Your task to perform on an android device: Open battery settings Image 0: 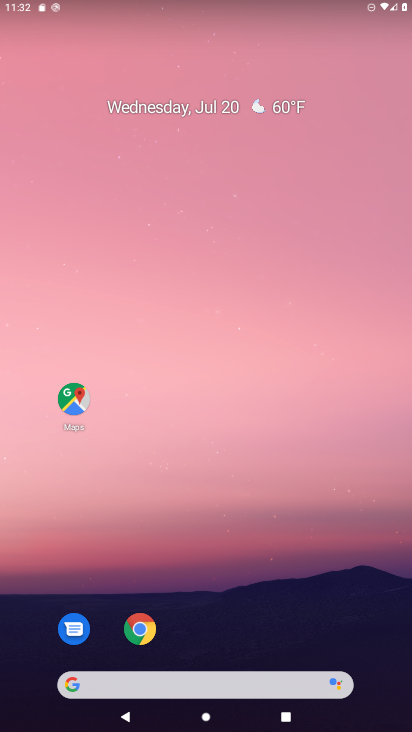
Step 0: drag from (204, 627) to (252, 246)
Your task to perform on an android device: Open battery settings Image 1: 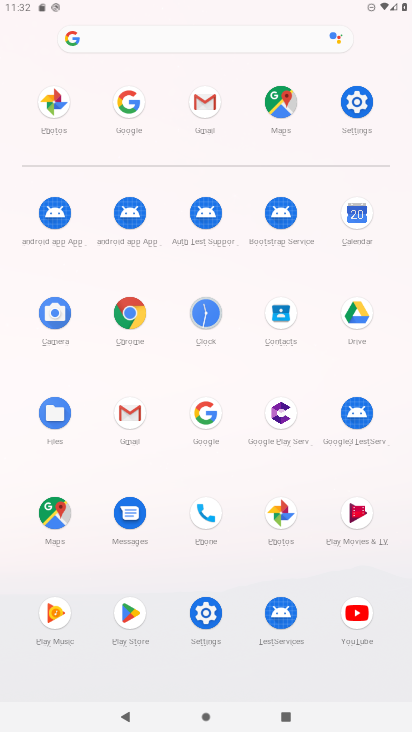
Step 1: click (350, 111)
Your task to perform on an android device: Open battery settings Image 2: 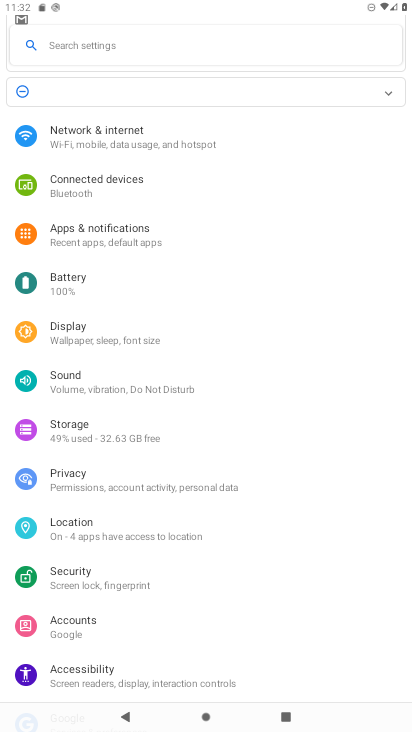
Step 2: click (101, 292)
Your task to perform on an android device: Open battery settings Image 3: 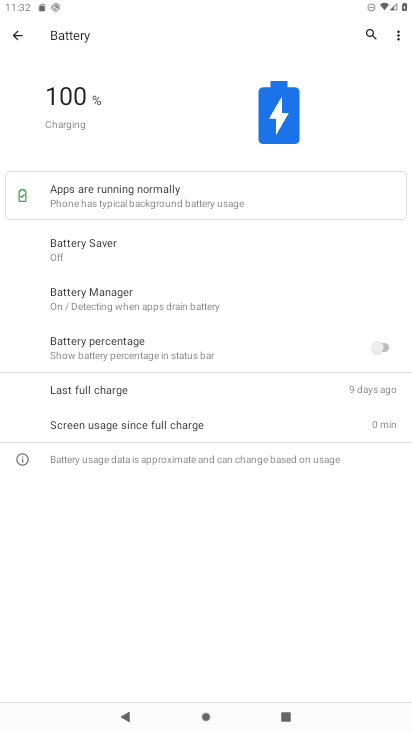
Step 3: task complete